Your task to perform on an android device: Open the map Image 0: 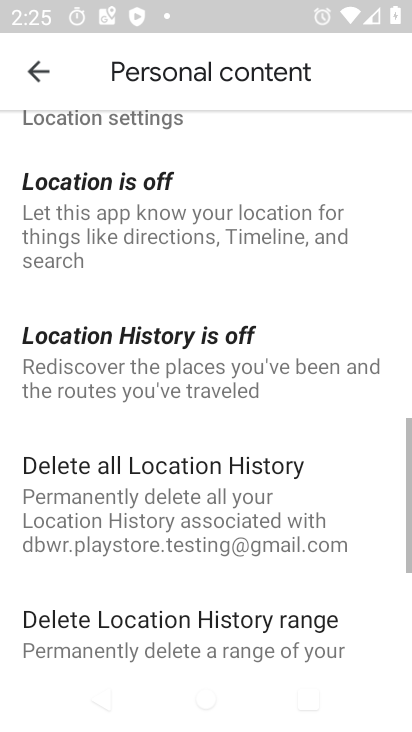
Step 0: press home button
Your task to perform on an android device: Open the map Image 1: 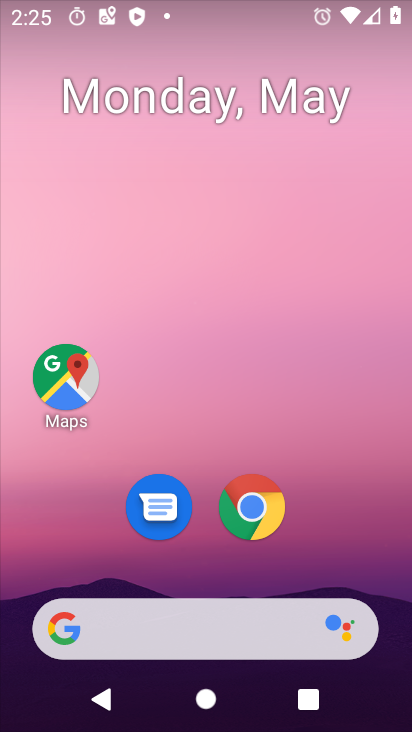
Step 1: drag from (239, 648) to (228, 114)
Your task to perform on an android device: Open the map Image 2: 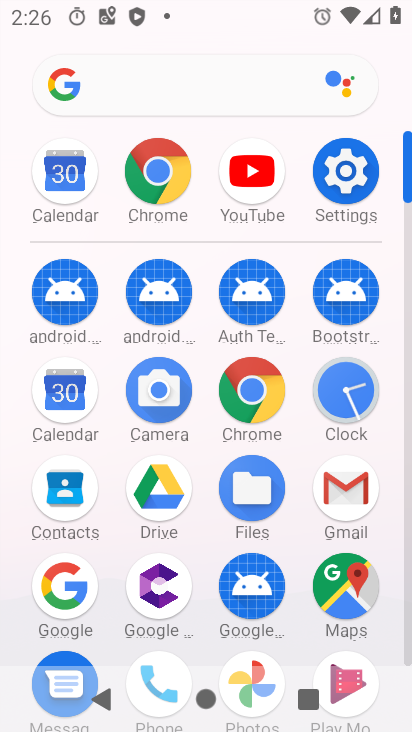
Step 2: click (342, 577)
Your task to perform on an android device: Open the map Image 3: 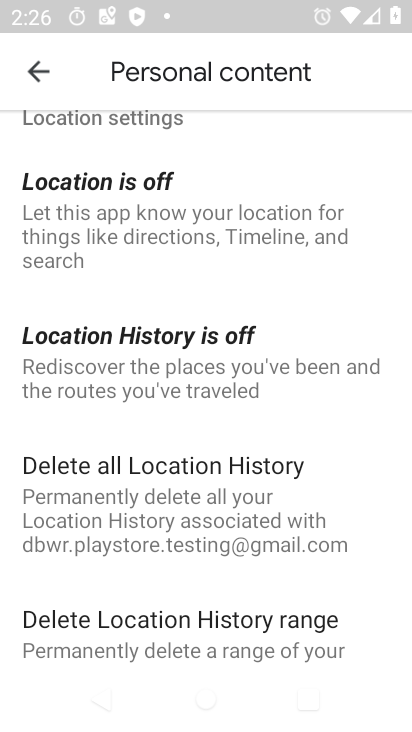
Step 3: click (33, 74)
Your task to perform on an android device: Open the map Image 4: 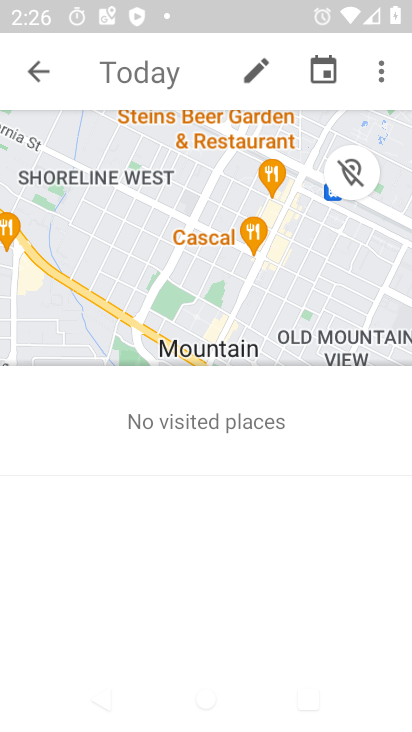
Step 4: task complete